Your task to perform on an android device: What's the weather going to be tomorrow? Image 0: 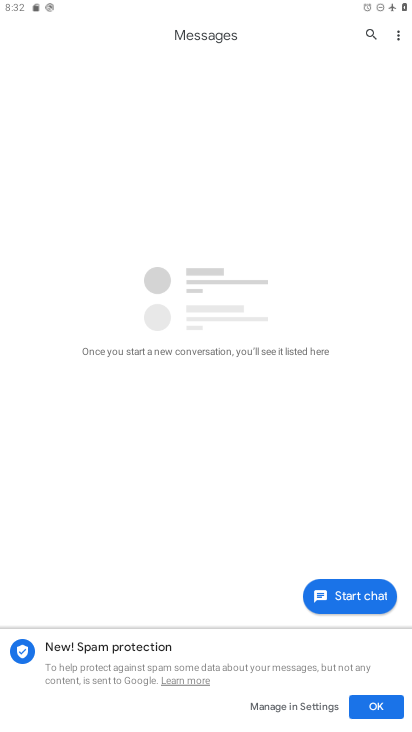
Step 0: press home button
Your task to perform on an android device: What's the weather going to be tomorrow? Image 1: 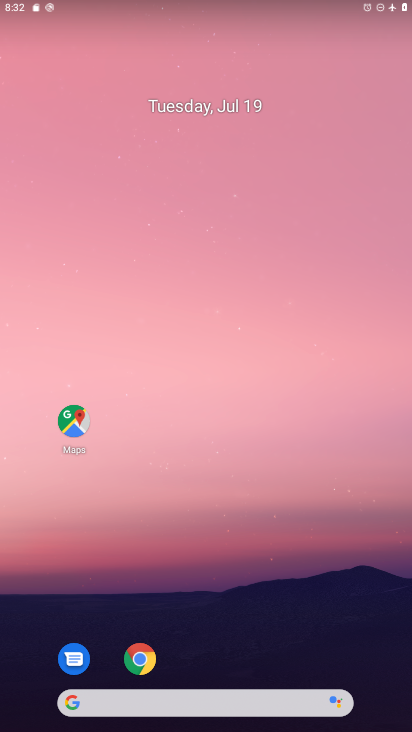
Step 1: click (147, 668)
Your task to perform on an android device: What's the weather going to be tomorrow? Image 2: 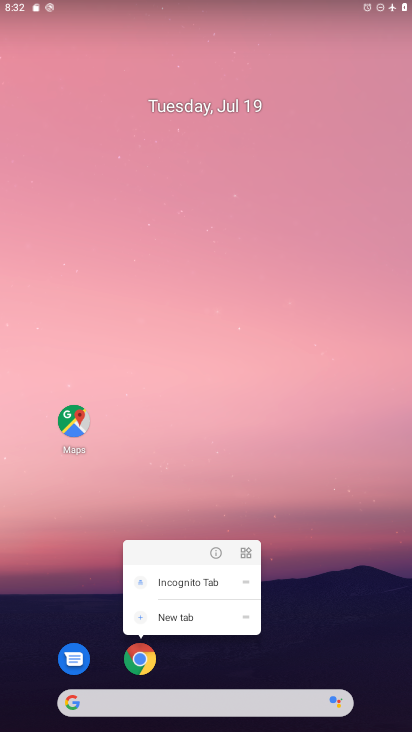
Step 2: click (138, 654)
Your task to perform on an android device: What's the weather going to be tomorrow? Image 3: 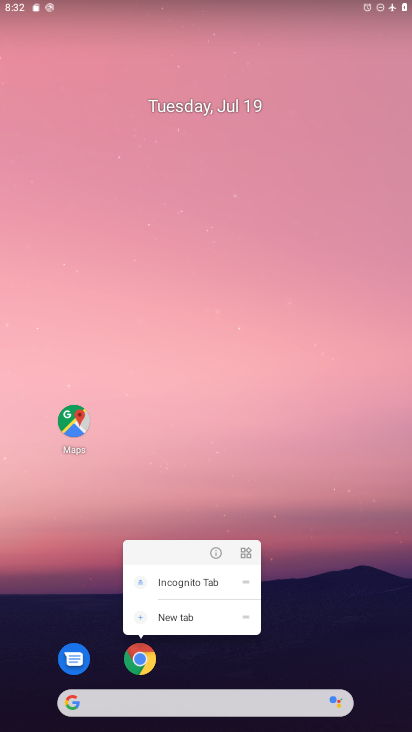
Step 3: click (131, 663)
Your task to perform on an android device: What's the weather going to be tomorrow? Image 4: 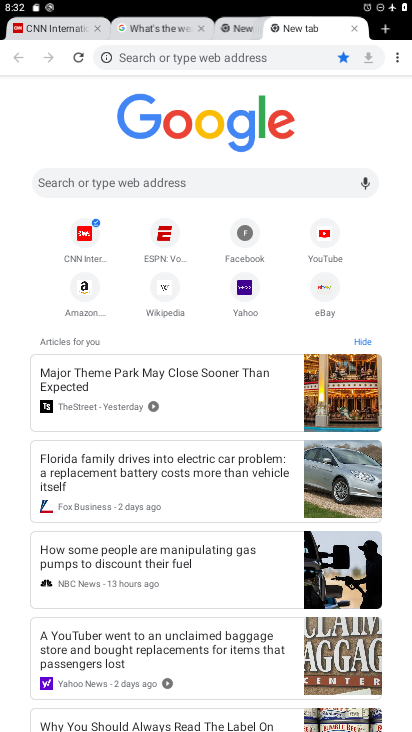
Step 4: click (190, 175)
Your task to perform on an android device: What's the weather going to be tomorrow? Image 5: 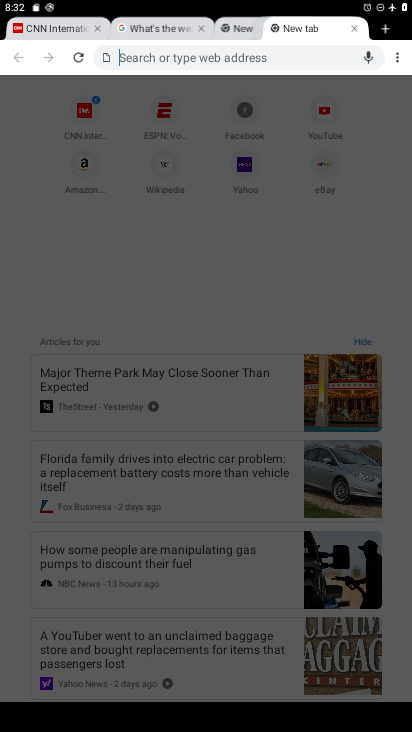
Step 5: type "What's the weather going to be tomorrow "
Your task to perform on an android device: What's the weather going to be tomorrow? Image 6: 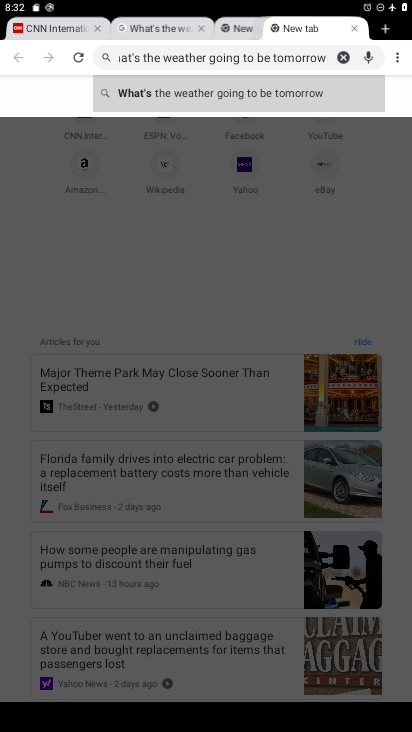
Step 6: click (224, 90)
Your task to perform on an android device: What's the weather going to be tomorrow? Image 7: 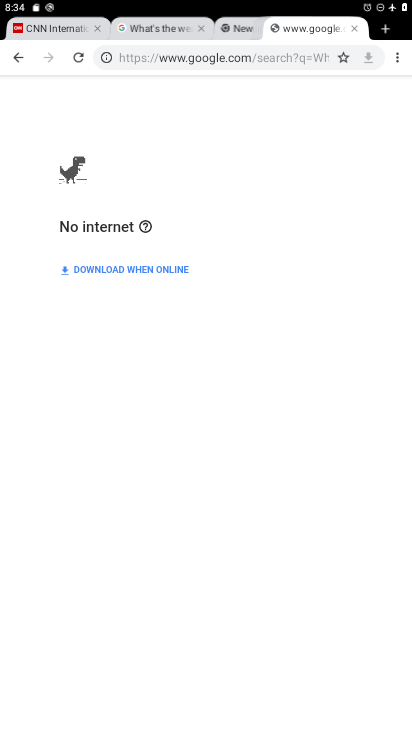
Step 7: task complete